Your task to perform on an android device: toggle sleep mode Image 0: 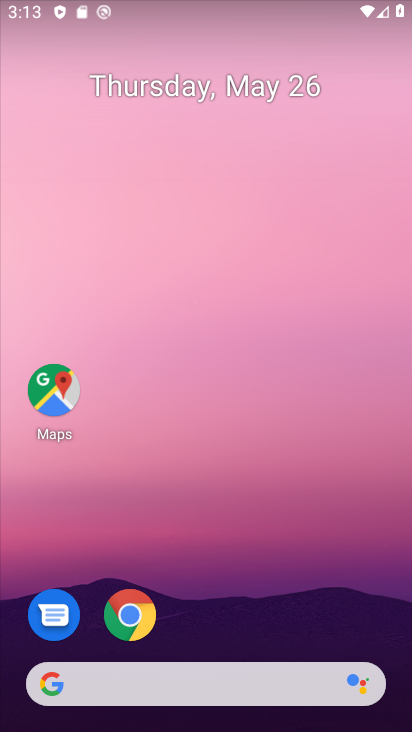
Step 0: drag from (270, 596) to (233, 76)
Your task to perform on an android device: toggle sleep mode Image 1: 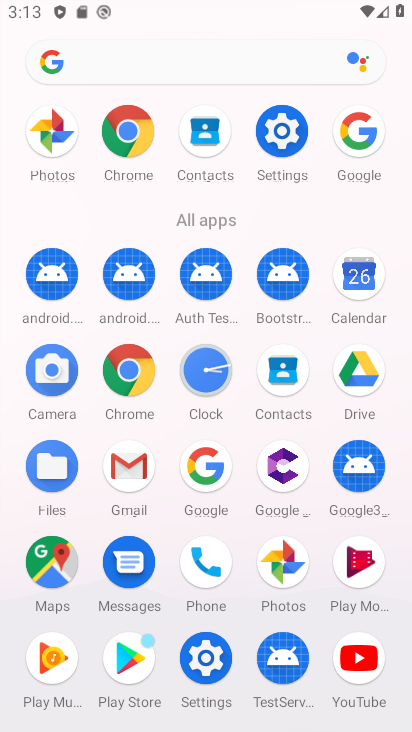
Step 1: drag from (266, 6) to (242, 536)
Your task to perform on an android device: toggle sleep mode Image 2: 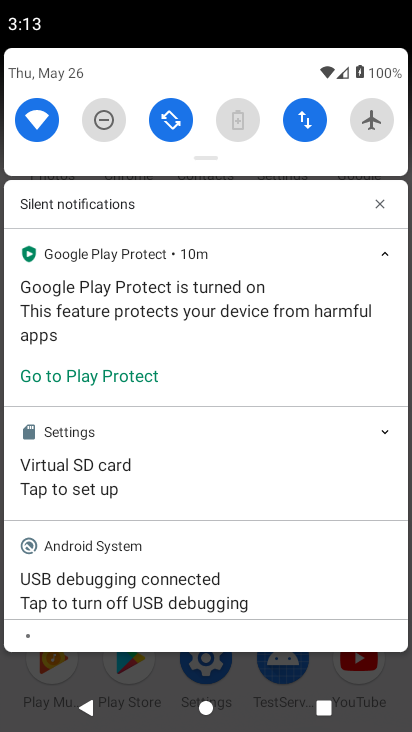
Step 2: drag from (225, 153) to (217, 558)
Your task to perform on an android device: toggle sleep mode Image 3: 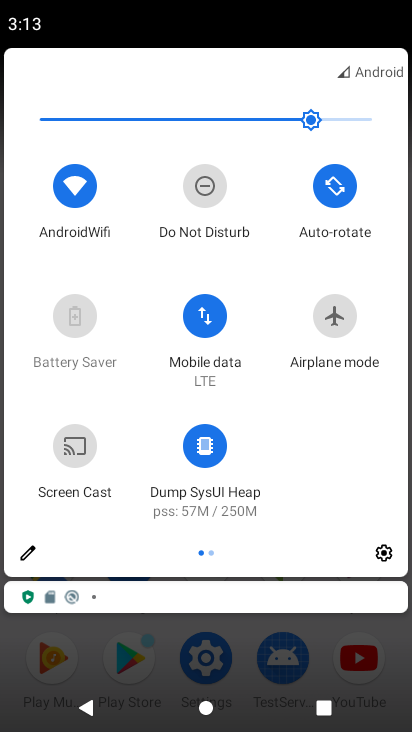
Step 3: click (25, 554)
Your task to perform on an android device: toggle sleep mode Image 4: 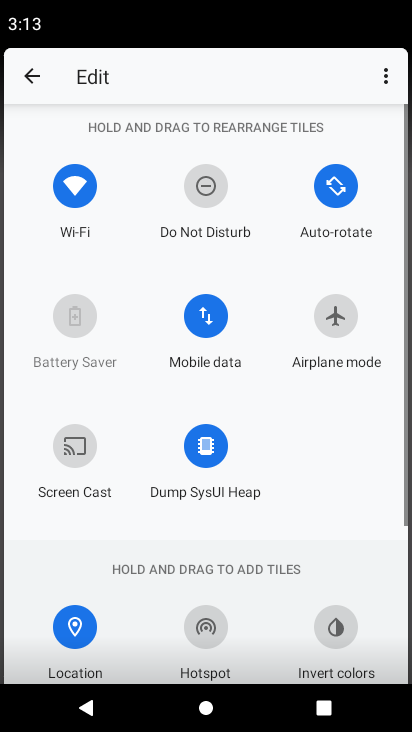
Step 4: task complete